Your task to perform on an android device: Go to settings Image 0: 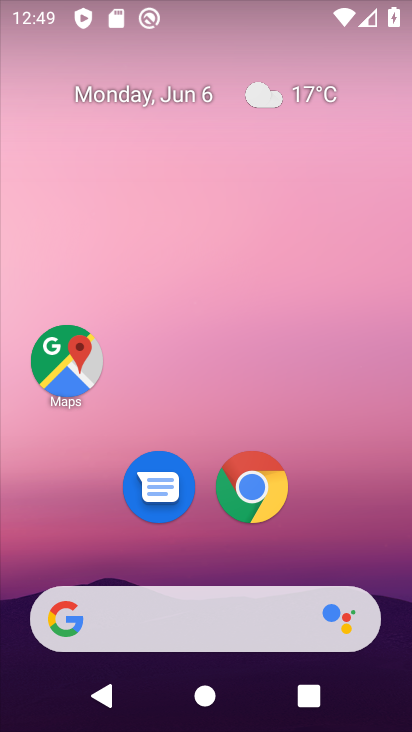
Step 0: drag from (135, 572) to (230, 67)
Your task to perform on an android device: Go to settings Image 1: 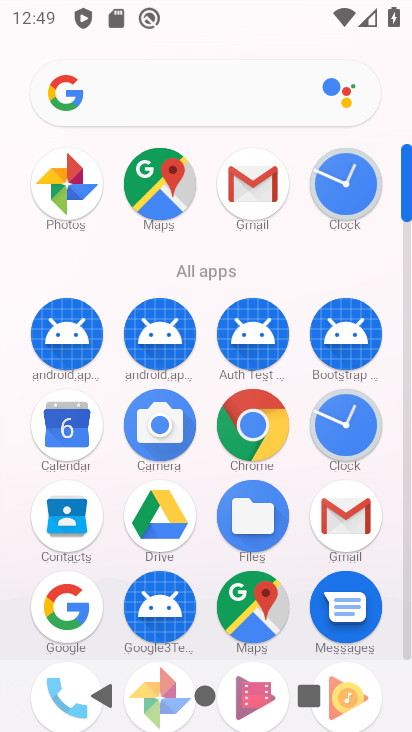
Step 1: drag from (273, 550) to (320, 365)
Your task to perform on an android device: Go to settings Image 2: 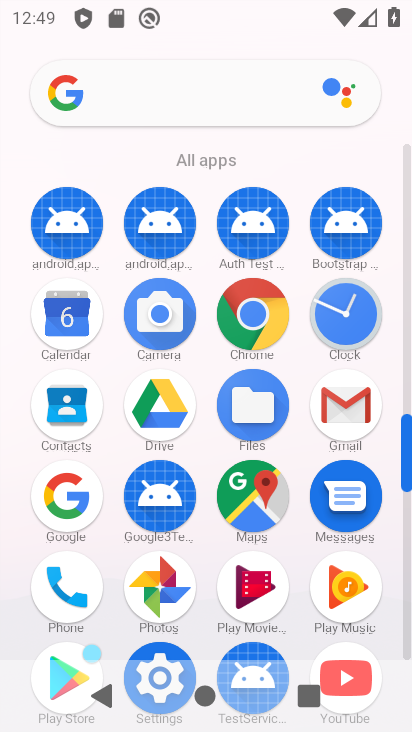
Step 2: click (179, 666)
Your task to perform on an android device: Go to settings Image 3: 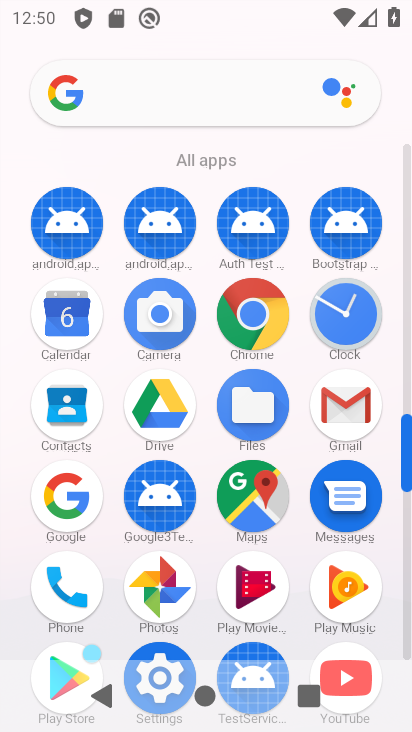
Step 3: click (171, 659)
Your task to perform on an android device: Go to settings Image 4: 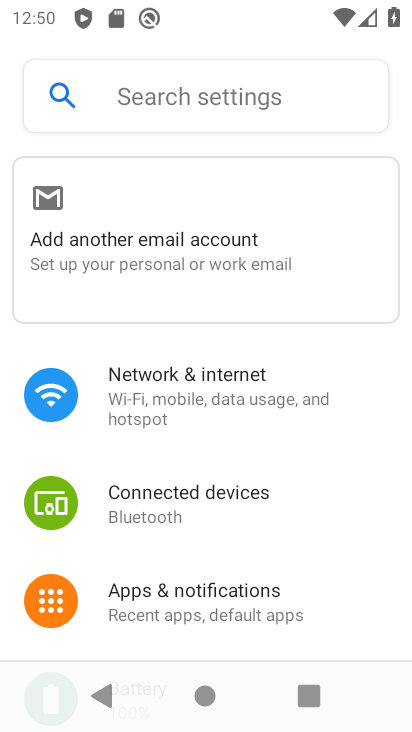
Step 4: task complete